Your task to perform on an android device: Show me recent news Image 0: 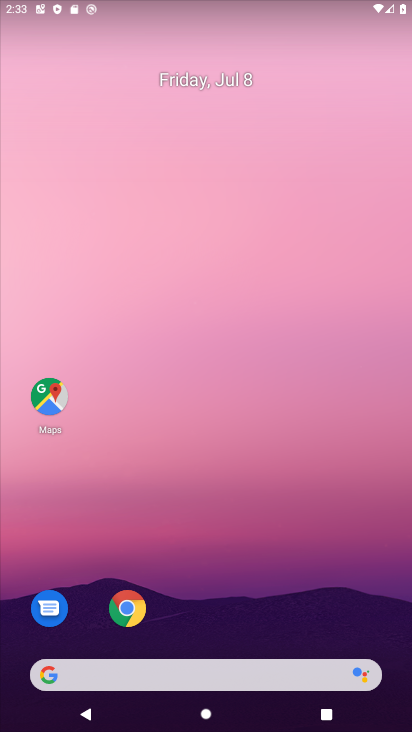
Step 0: drag from (199, 672) to (284, 44)
Your task to perform on an android device: Show me recent news Image 1: 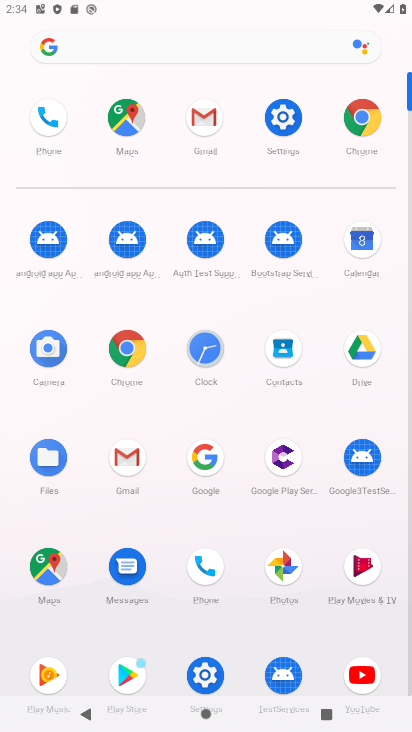
Step 1: click (132, 353)
Your task to perform on an android device: Show me recent news Image 2: 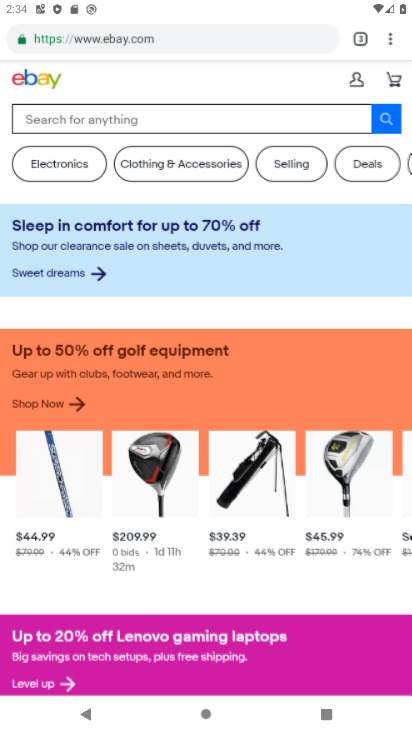
Step 2: click (194, 43)
Your task to perform on an android device: Show me recent news Image 3: 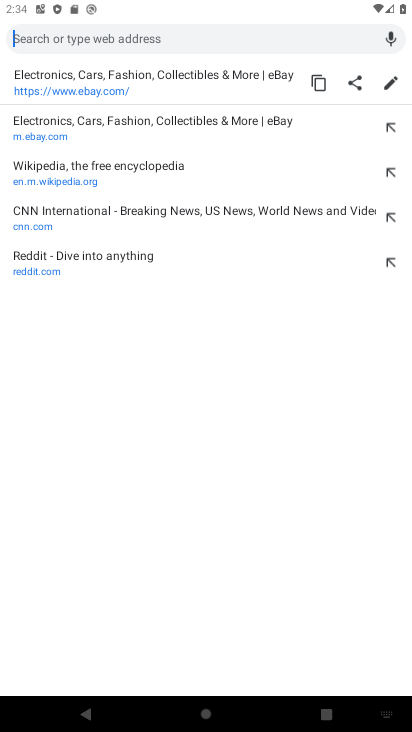
Step 3: type "recent news"
Your task to perform on an android device: Show me recent news Image 4: 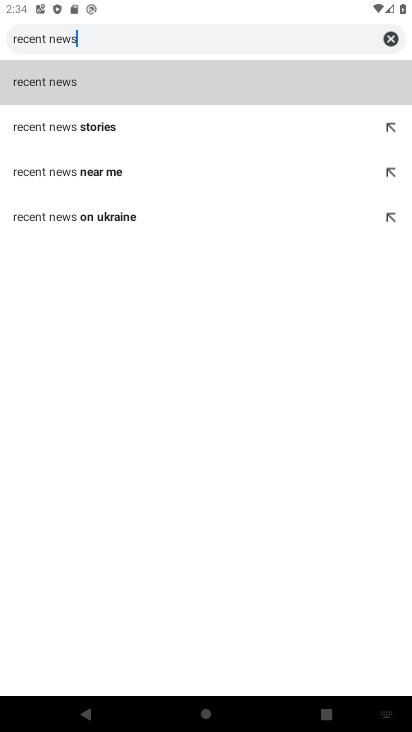
Step 4: click (69, 80)
Your task to perform on an android device: Show me recent news Image 5: 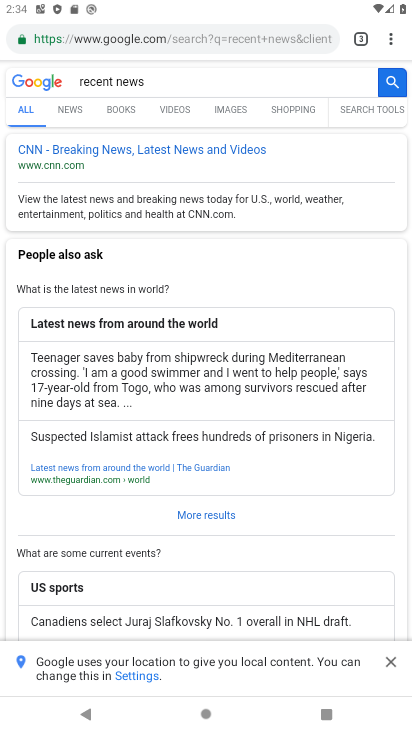
Step 5: task complete